Your task to perform on an android device: read, delete, or share a saved page in the chrome app Image 0: 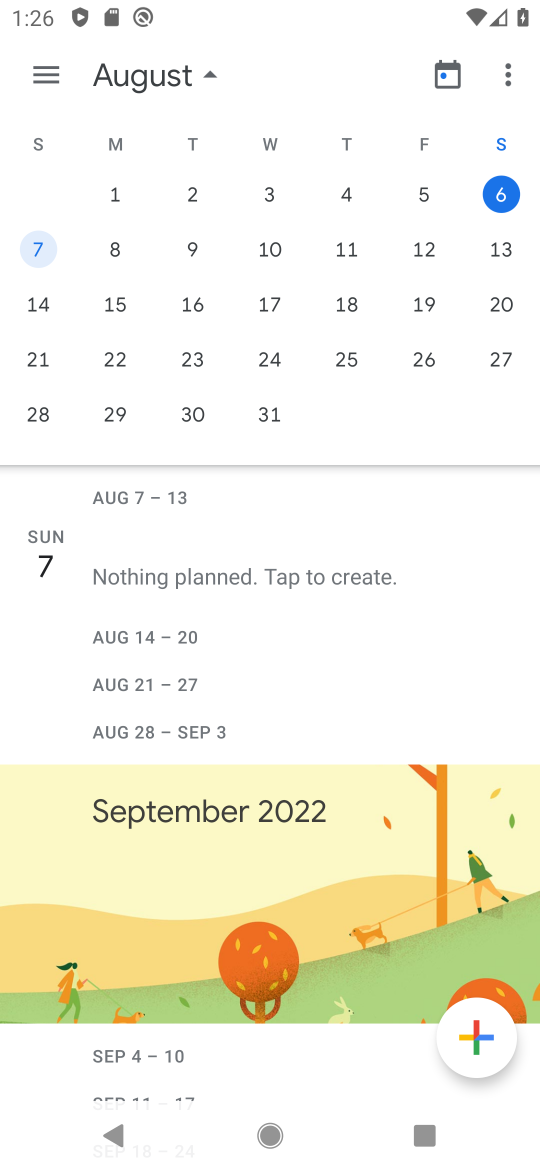
Step 0: press home button
Your task to perform on an android device: read, delete, or share a saved page in the chrome app Image 1: 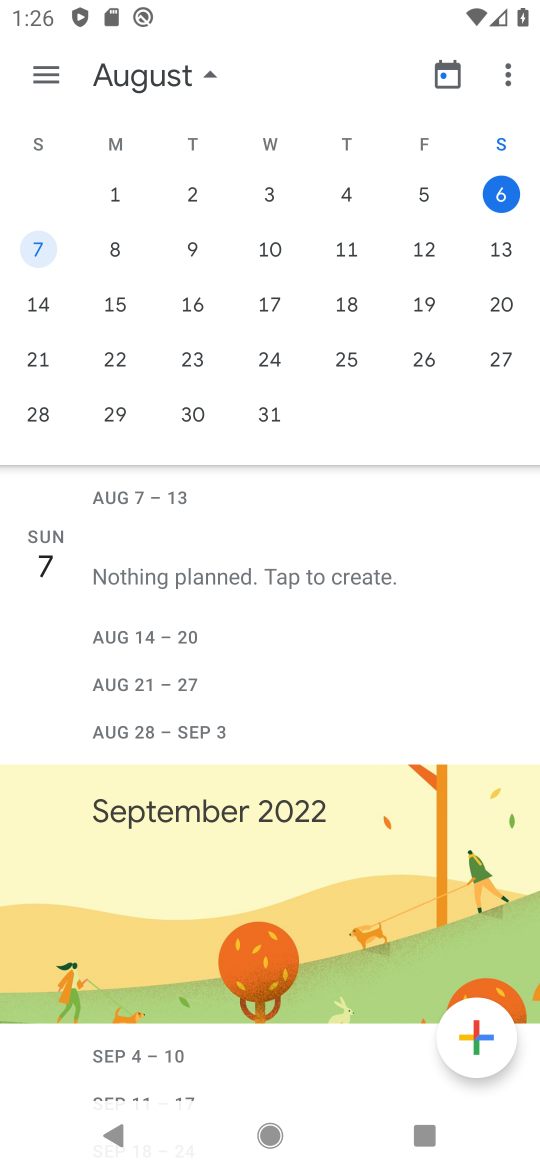
Step 1: click (357, 92)
Your task to perform on an android device: read, delete, or share a saved page in the chrome app Image 2: 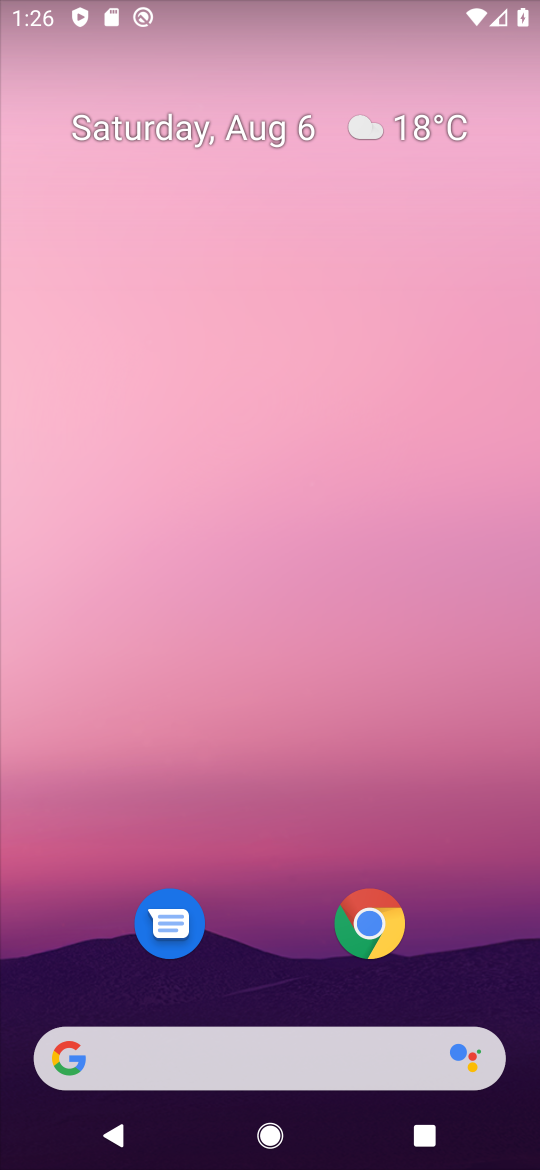
Step 2: drag from (252, 961) to (272, 318)
Your task to perform on an android device: read, delete, or share a saved page in the chrome app Image 3: 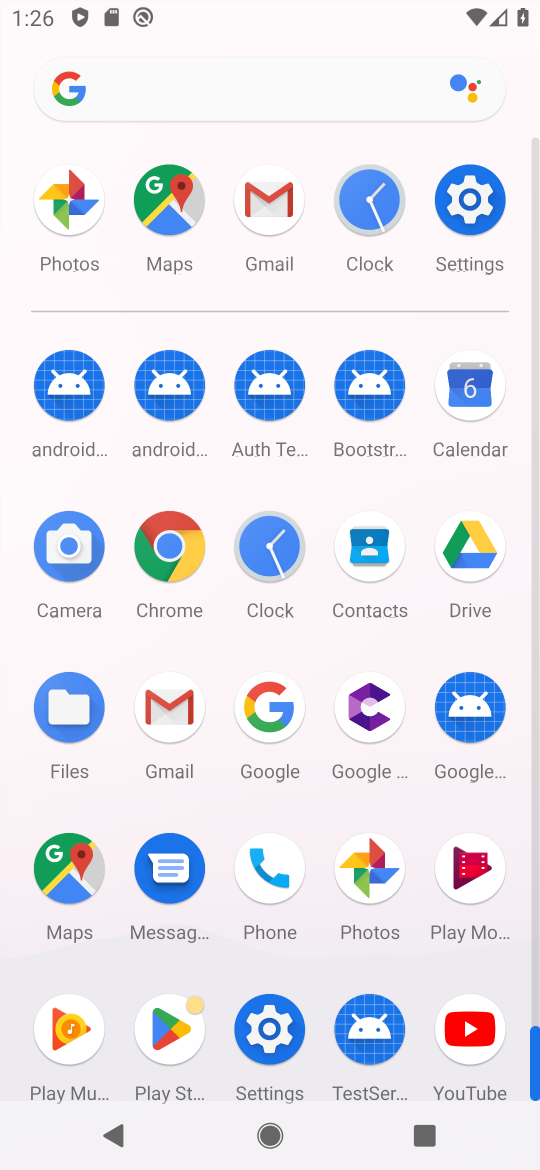
Step 3: click (166, 534)
Your task to perform on an android device: read, delete, or share a saved page in the chrome app Image 4: 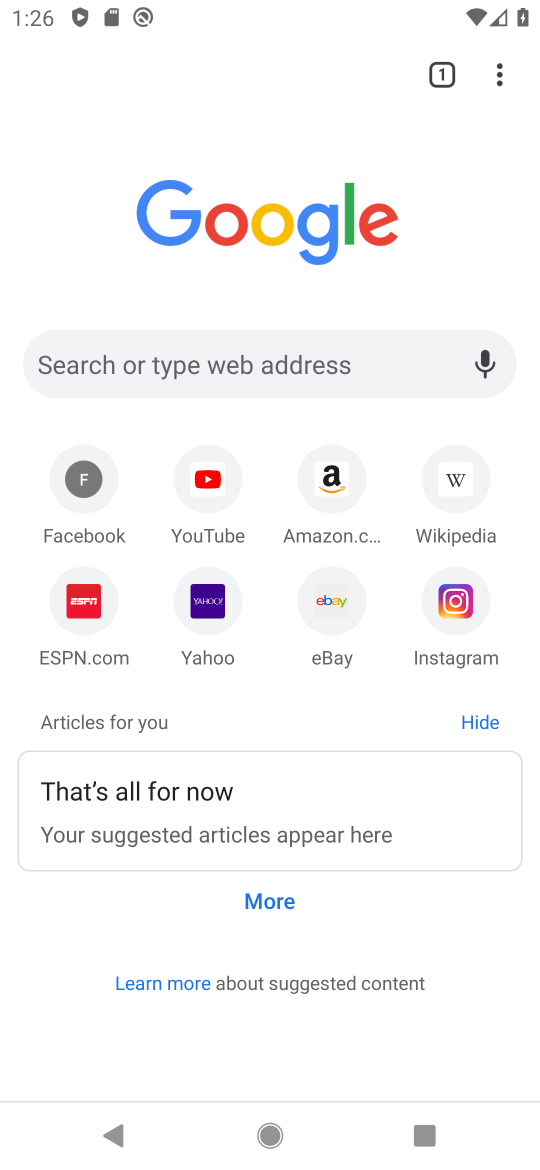
Step 4: drag from (499, 74) to (269, 354)
Your task to perform on an android device: read, delete, or share a saved page in the chrome app Image 5: 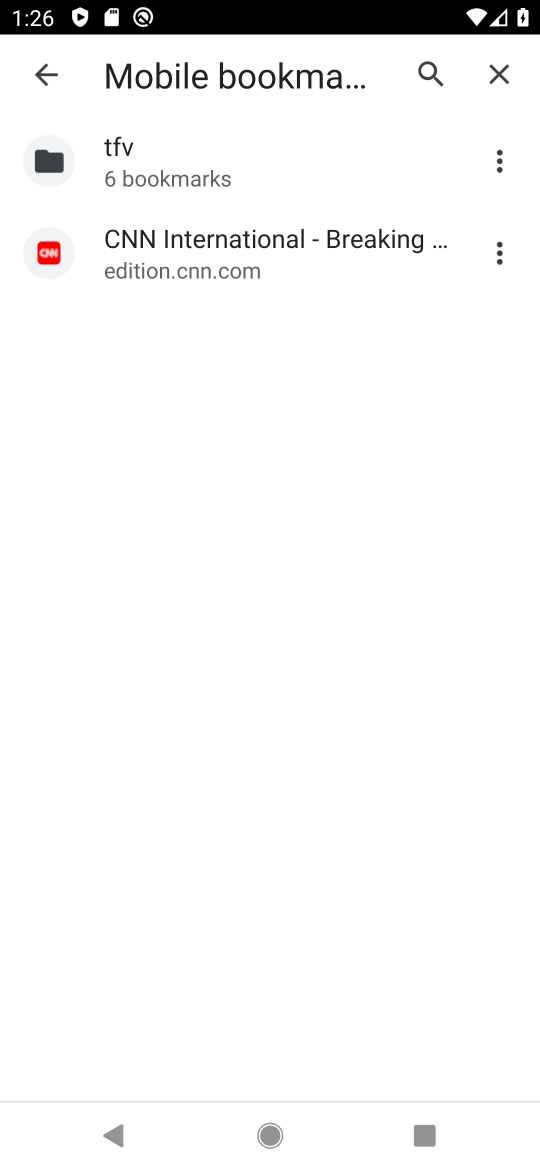
Step 5: drag from (276, 578) to (276, 260)
Your task to perform on an android device: read, delete, or share a saved page in the chrome app Image 6: 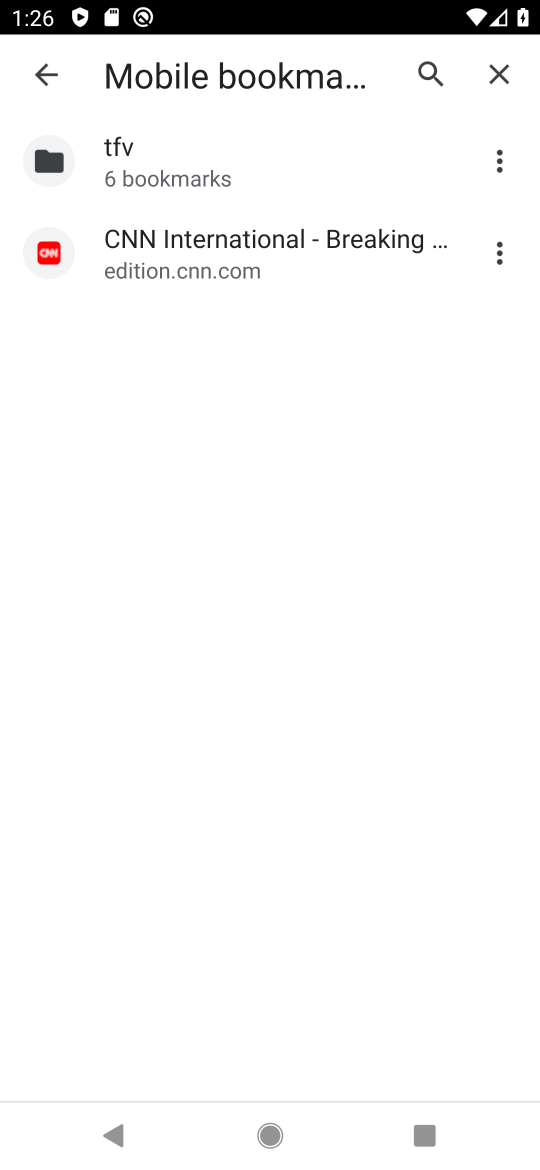
Step 6: drag from (265, 666) to (292, 2)
Your task to perform on an android device: read, delete, or share a saved page in the chrome app Image 7: 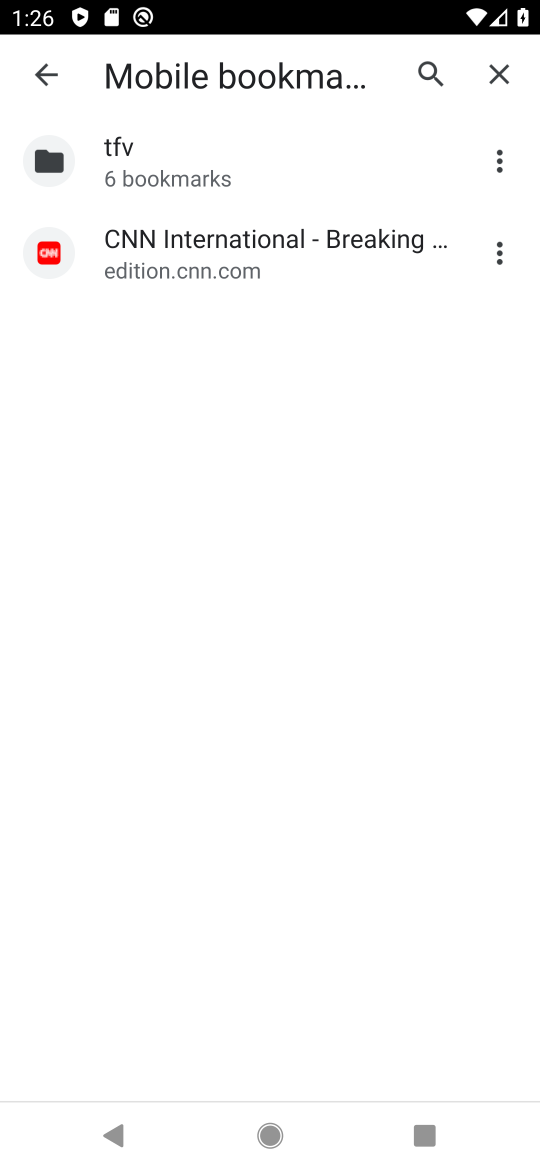
Step 7: click (203, 249)
Your task to perform on an android device: read, delete, or share a saved page in the chrome app Image 8: 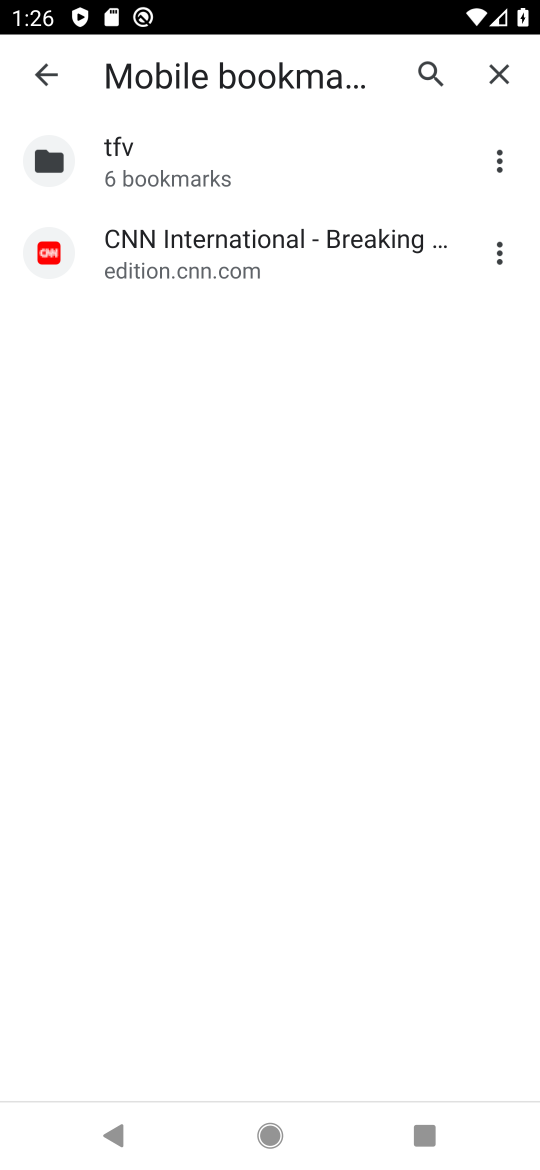
Step 8: task complete